Your task to perform on an android device: change the upload size in google photos Image 0: 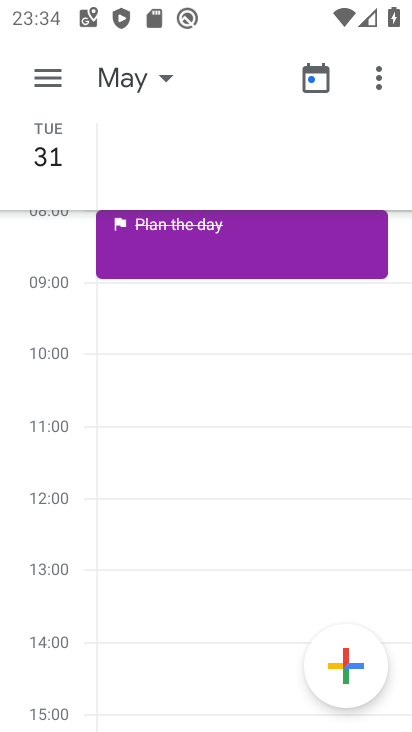
Step 0: press home button
Your task to perform on an android device: change the upload size in google photos Image 1: 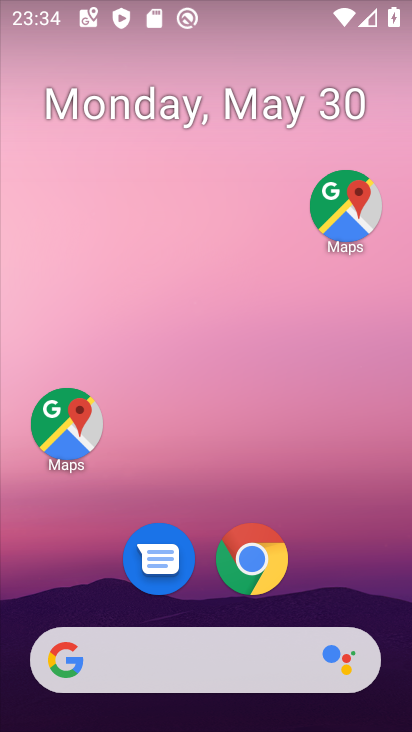
Step 1: drag from (339, 527) to (314, 90)
Your task to perform on an android device: change the upload size in google photos Image 2: 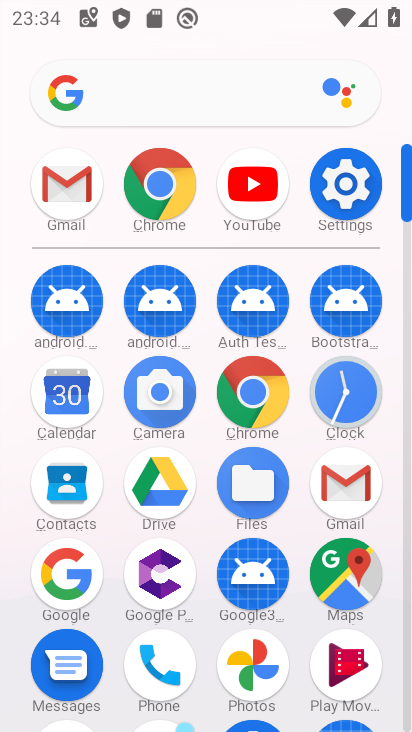
Step 2: click (242, 674)
Your task to perform on an android device: change the upload size in google photos Image 3: 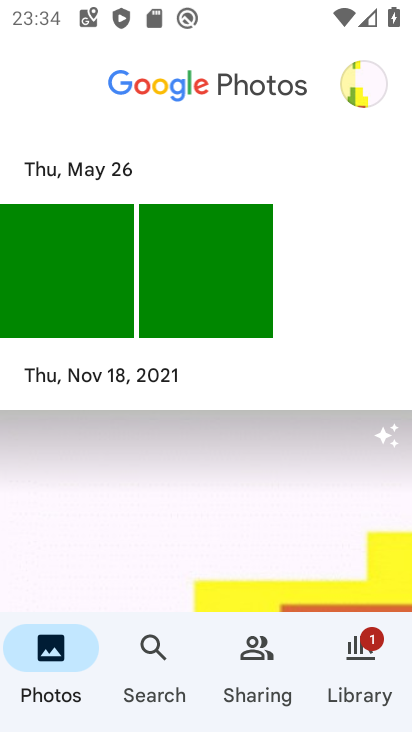
Step 3: click (365, 91)
Your task to perform on an android device: change the upload size in google photos Image 4: 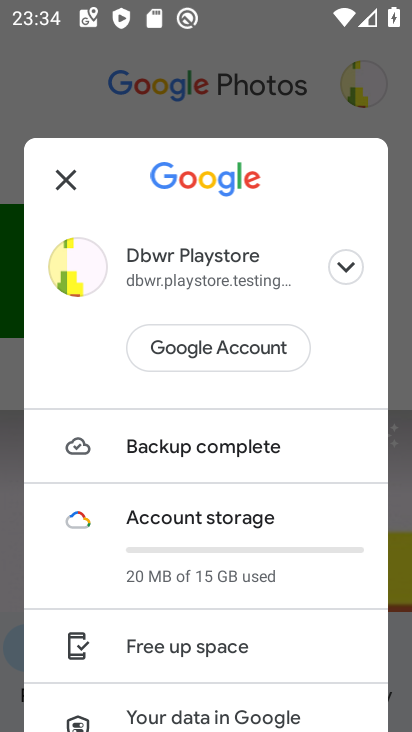
Step 4: drag from (262, 543) to (312, 104)
Your task to perform on an android device: change the upload size in google photos Image 5: 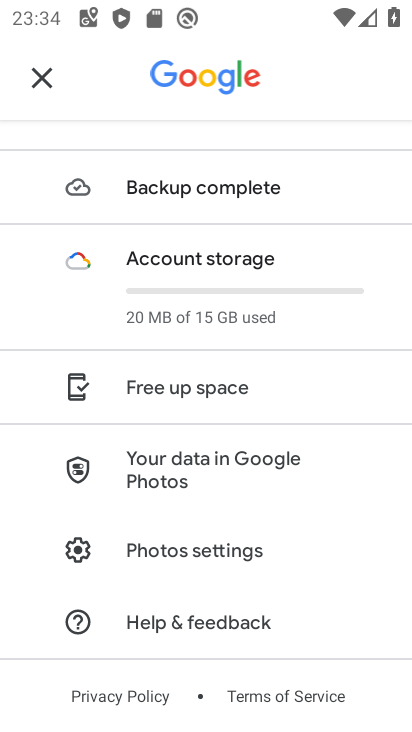
Step 5: click (254, 555)
Your task to perform on an android device: change the upload size in google photos Image 6: 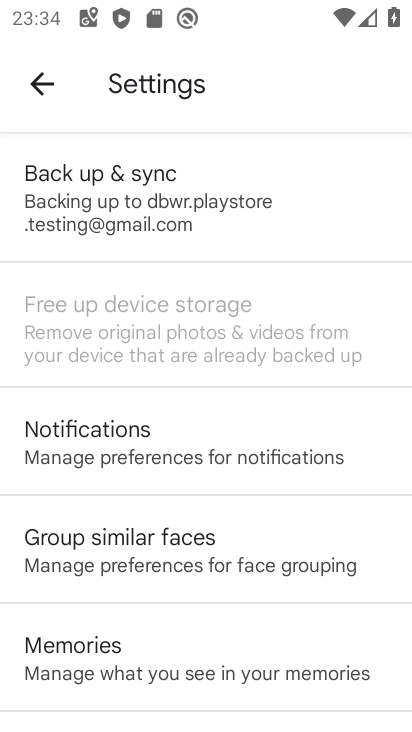
Step 6: click (215, 193)
Your task to perform on an android device: change the upload size in google photos Image 7: 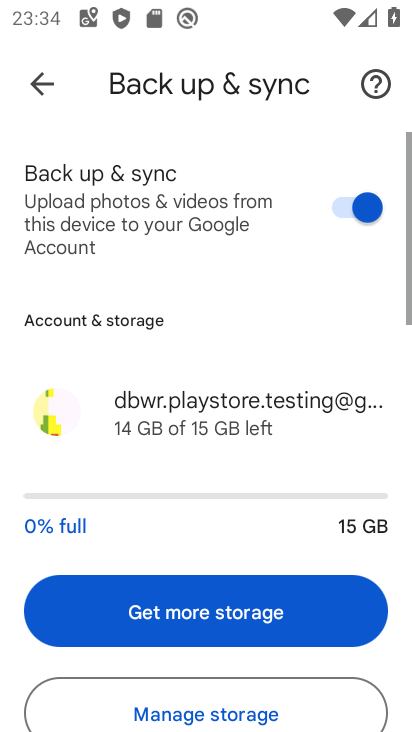
Step 7: drag from (216, 564) to (274, 96)
Your task to perform on an android device: change the upload size in google photos Image 8: 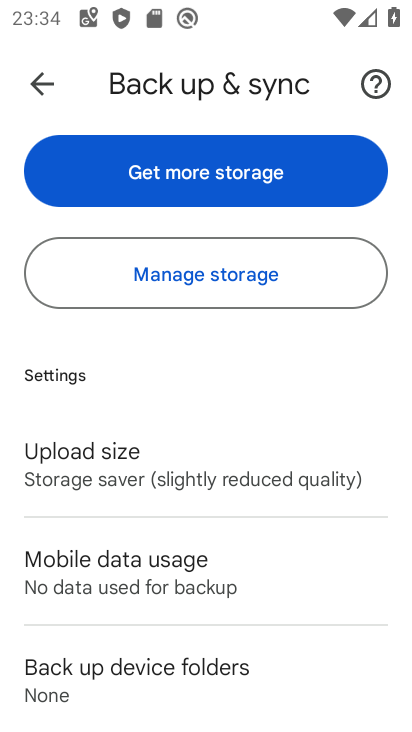
Step 8: click (232, 482)
Your task to perform on an android device: change the upload size in google photos Image 9: 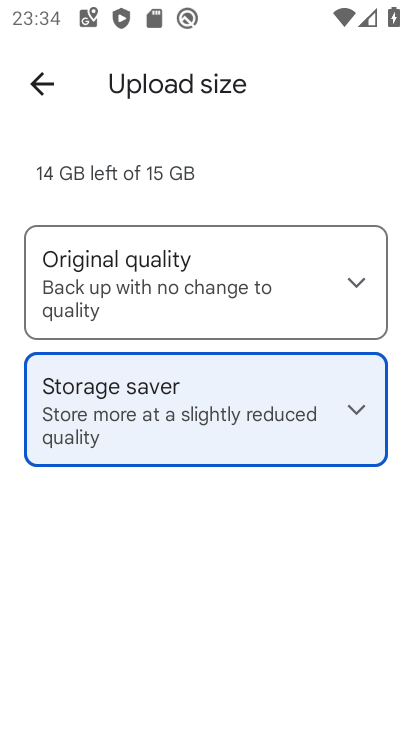
Step 9: click (189, 296)
Your task to perform on an android device: change the upload size in google photos Image 10: 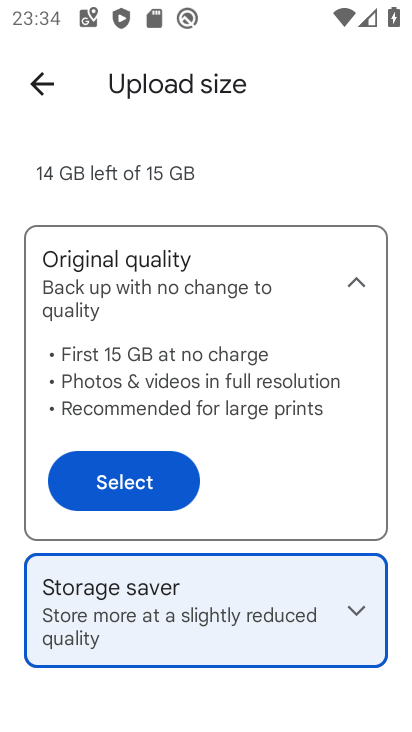
Step 10: click (134, 476)
Your task to perform on an android device: change the upload size in google photos Image 11: 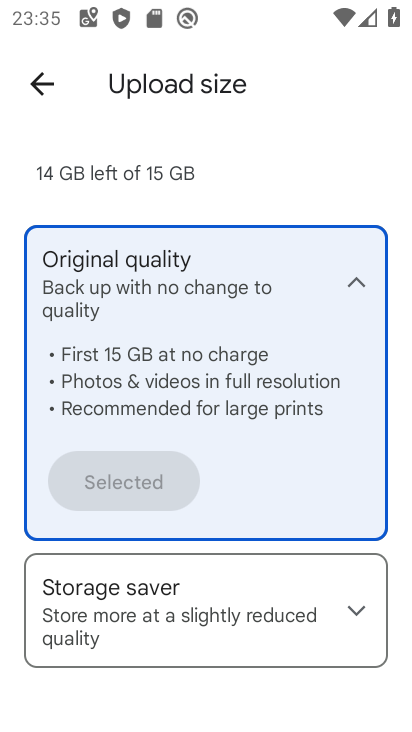
Step 11: task complete